Your task to perform on an android device: Open Google Chrome Image 0: 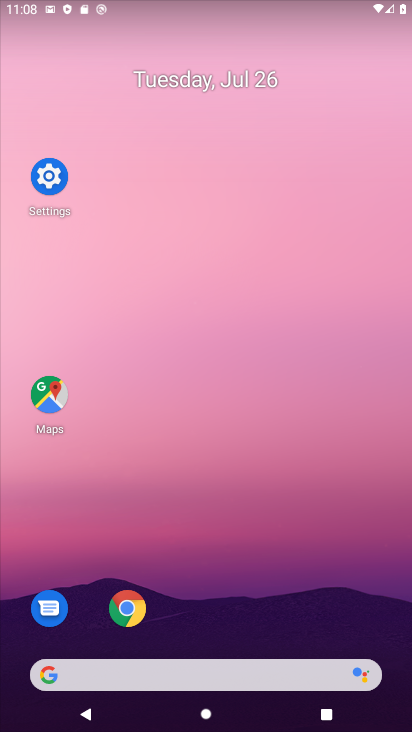
Step 0: click (131, 602)
Your task to perform on an android device: Open Google Chrome Image 1: 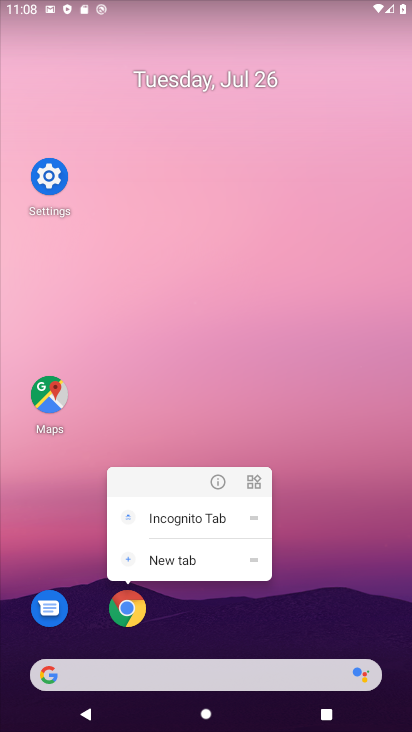
Step 1: click (131, 602)
Your task to perform on an android device: Open Google Chrome Image 2: 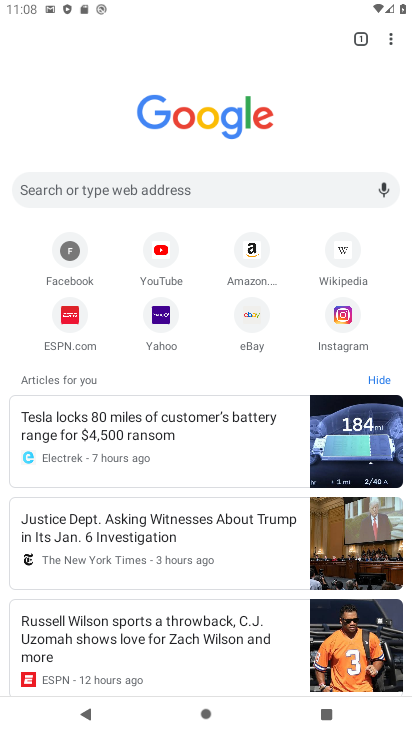
Step 2: task complete